Your task to perform on an android device: turn off location Image 0: 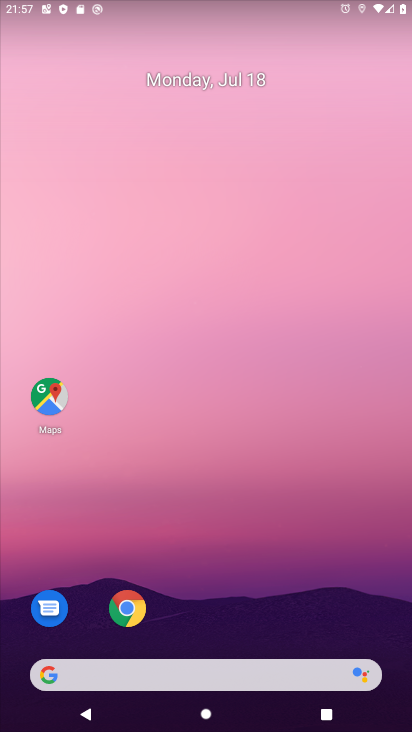
Step 0: drag from (16, 700) to (314, 78)
Your task to perform on an android device: turn off location Image 1: 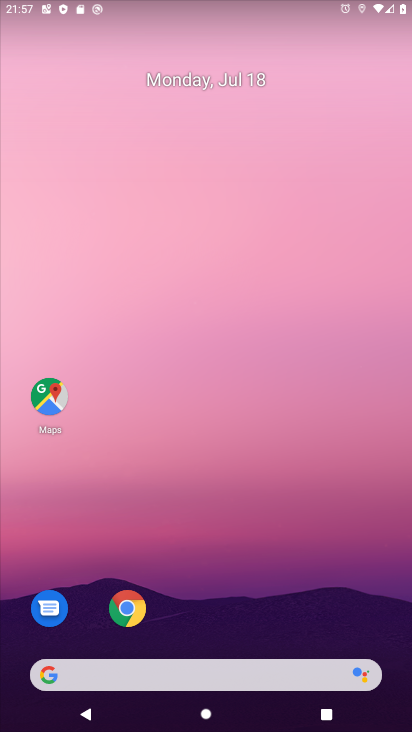
Step 1: drag from (85, 647) to (365, 31)
Your task to perform on an android device: turn off location Image 2: 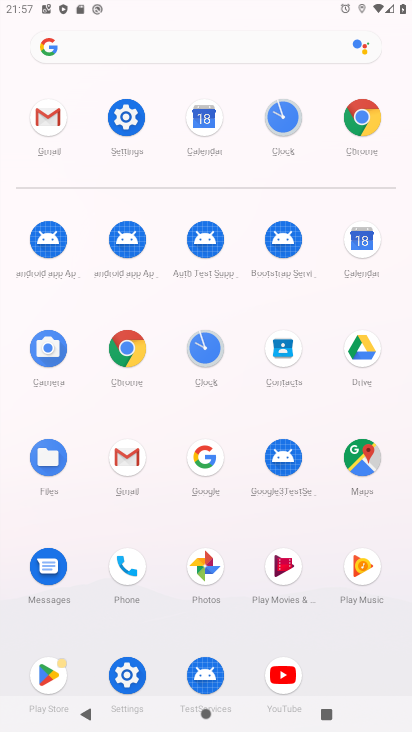
Step 2: click (121, 695)
Your task to perform on an android device: turn off location Image 3: 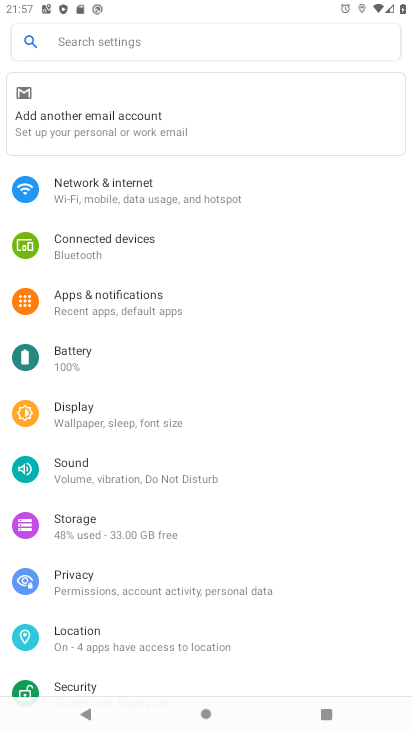
Step 3: click (91, 649)
Your task to perform on an android device: turn off location Image 4: 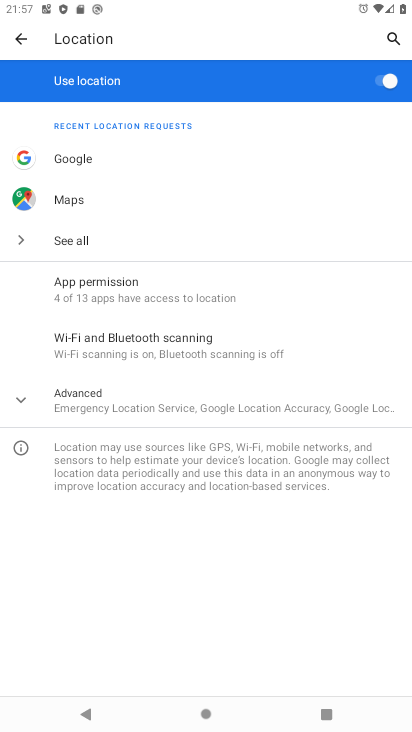
Step 4: click (395, 84)
Your task to perform on an android device: turn off location Image 5: 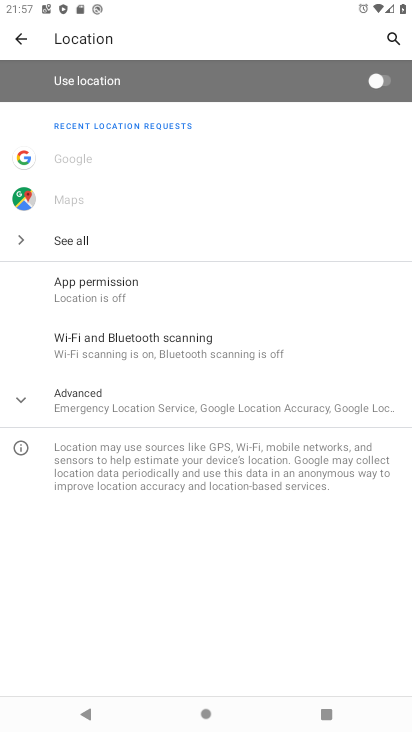
Step 5: task complete